Your task to perform on an android device: What time is it in London? Image 0: 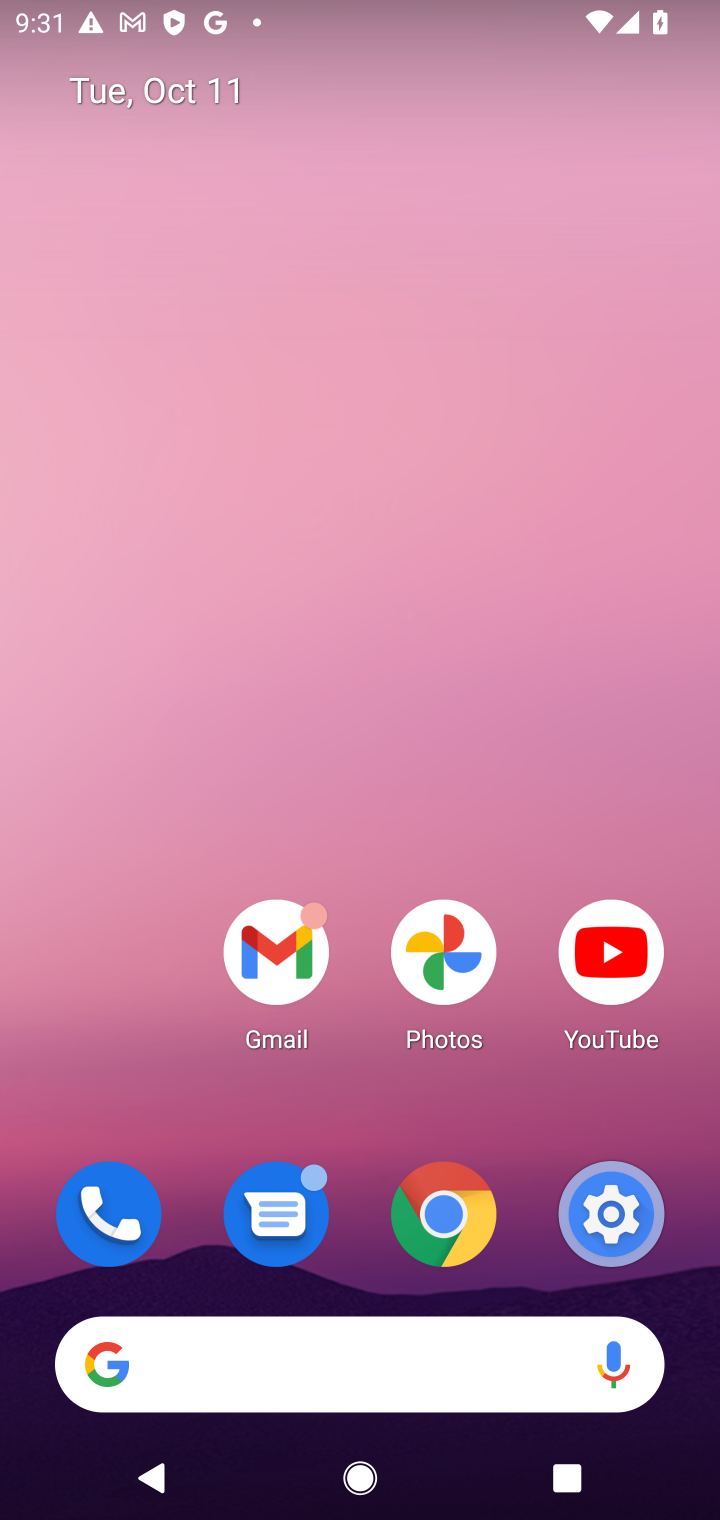
Step 0: drag from (362, 1253) to (347, 226)
Your task to perform on an android device: What time is it in London? Image 1: 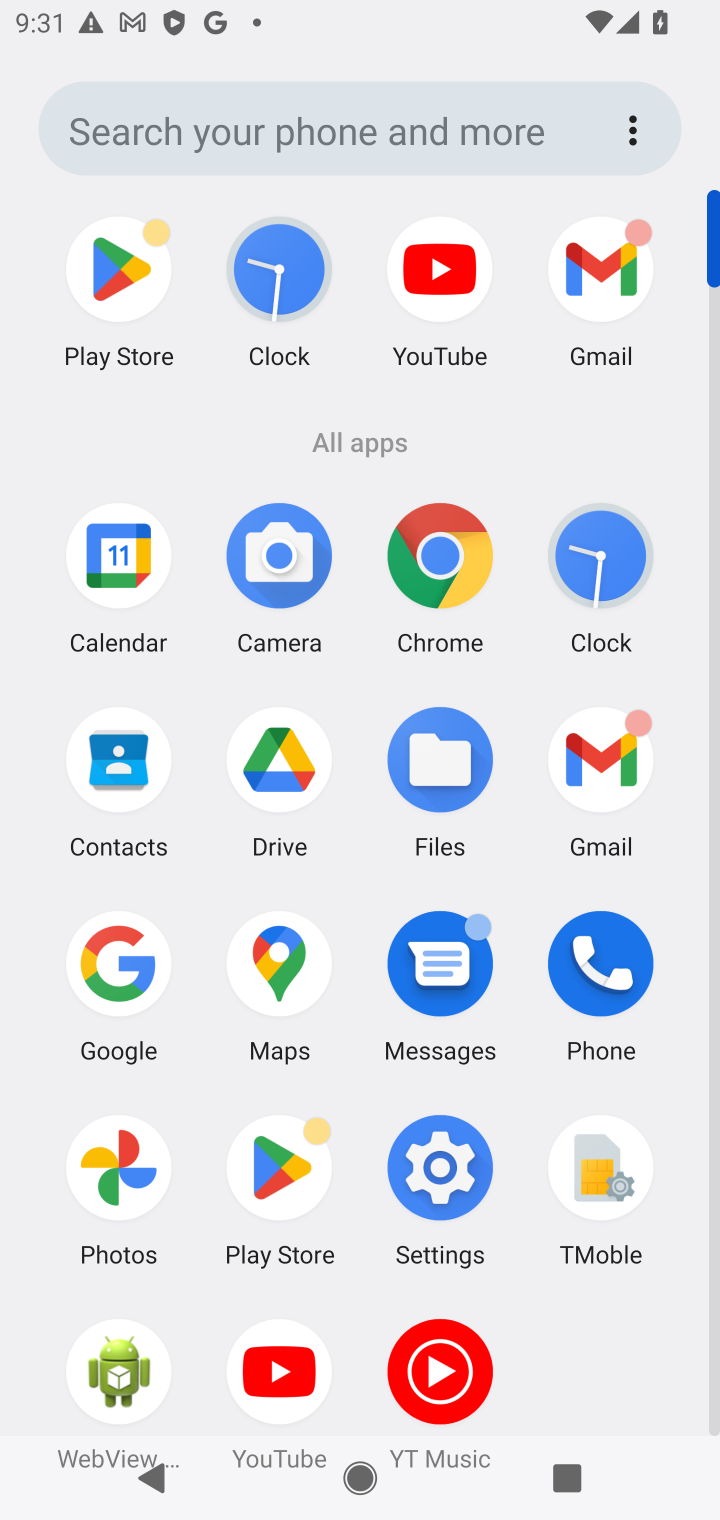
Step 1: click (429, 561)
Your task to perform on an android device: What time is it in London? Image 2: 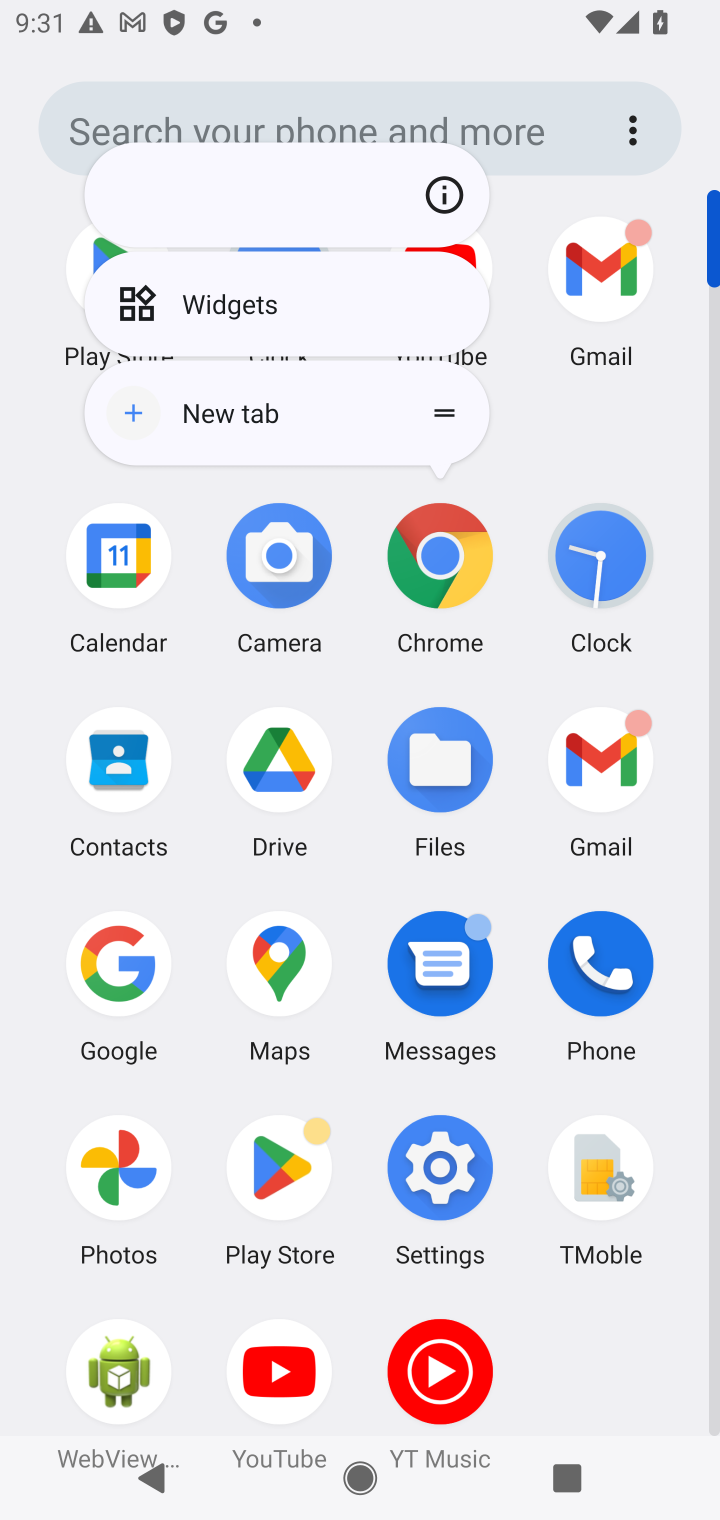
Step 2: click (457, 557)
Your task to perform on an android device: What time is it in London? Image 3: 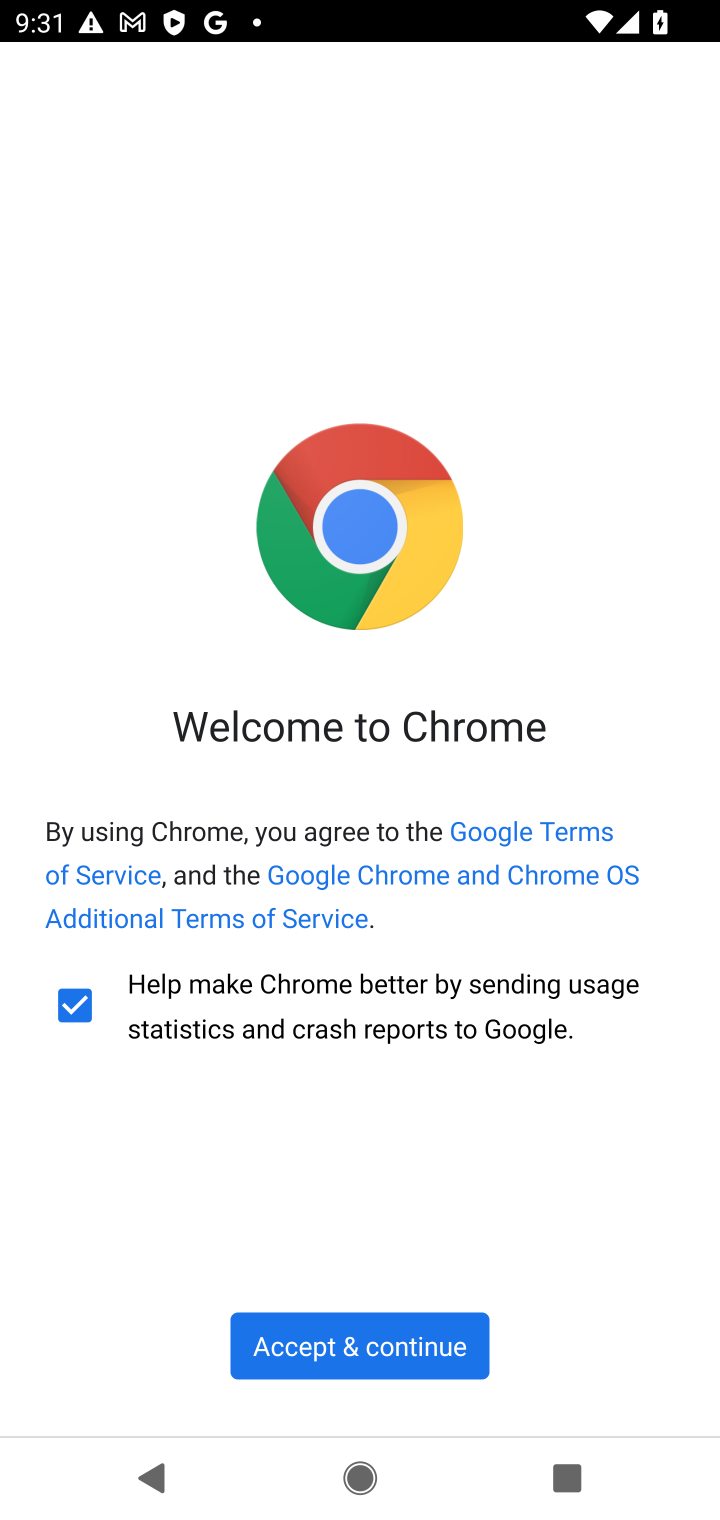
Step 3: click (346, 1346)
Your task to perform on an android device: What time is it in London? Image 4: 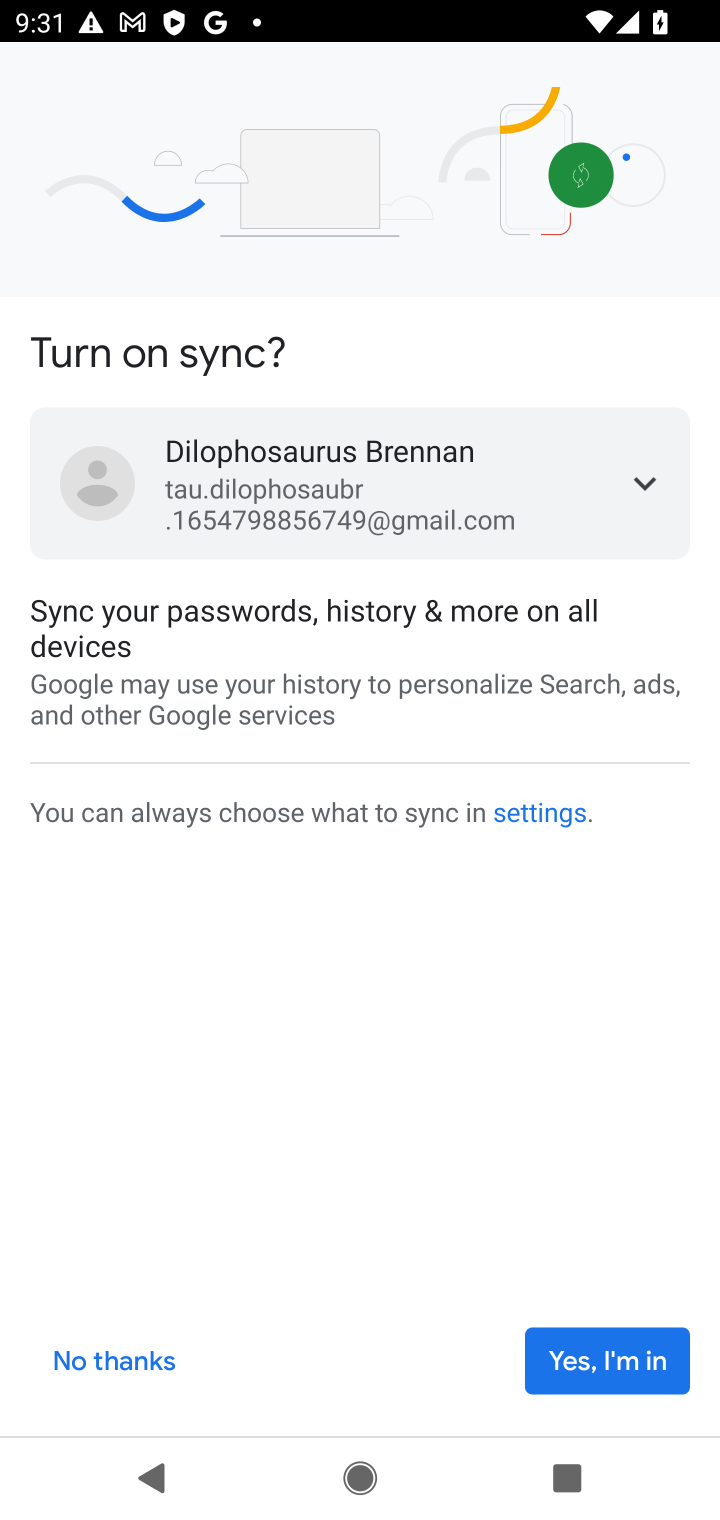
Step 4: click (608, 1379)
Your task to perform on an android device: What time is it in London? Image 5: 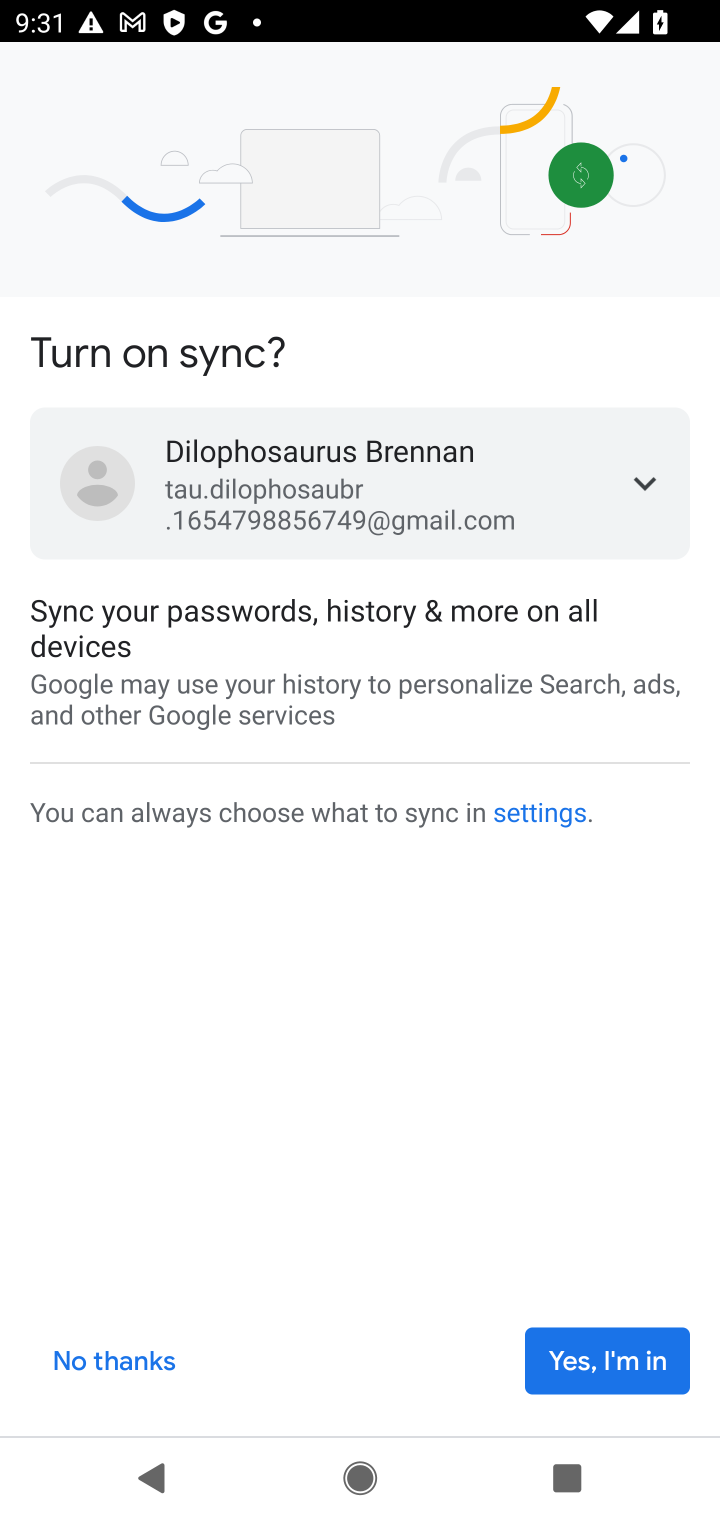
Step 5: click (602, 1357)
Your task to perform on an android device: What time is it in London? Image 6: 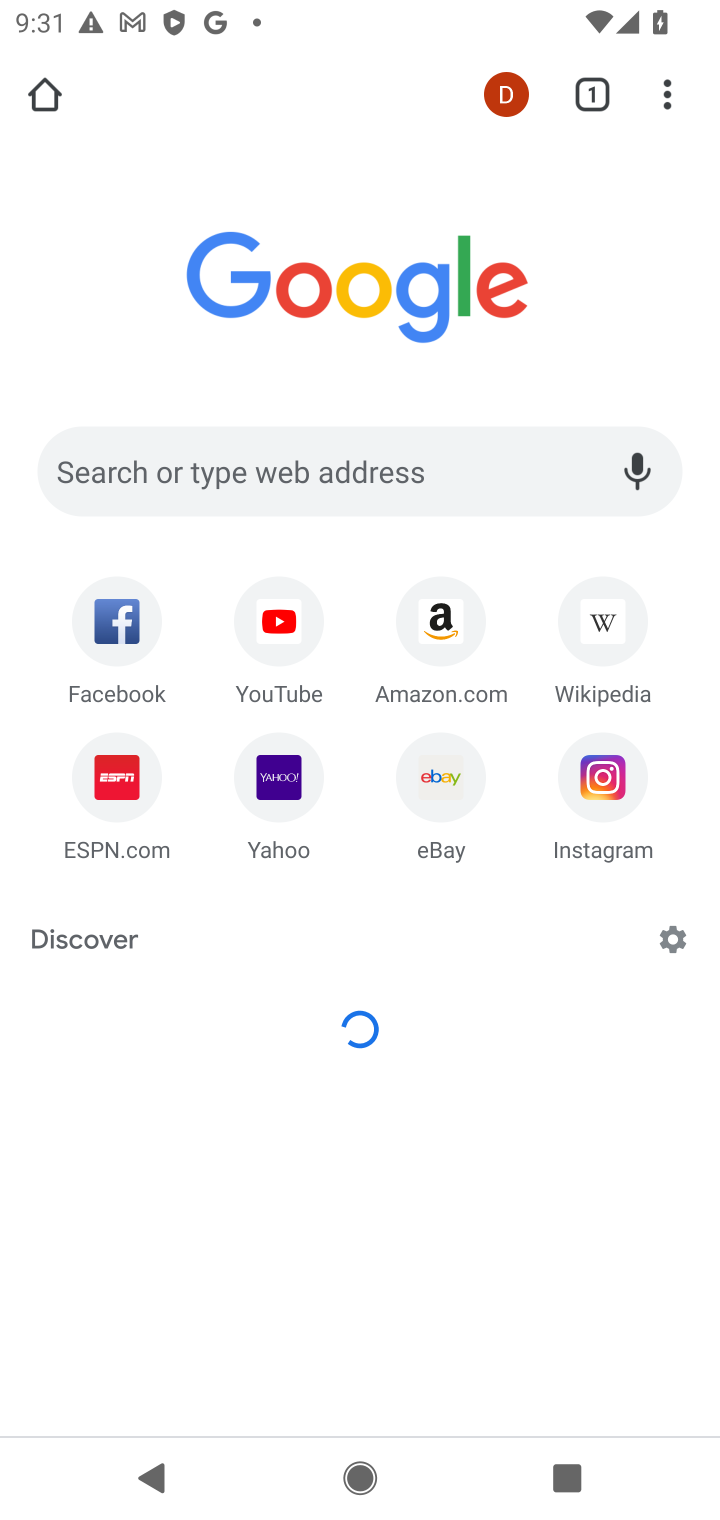
Step 6: click (448, 476)
Your task to perform on an android device: What time is it in London? Image 7: 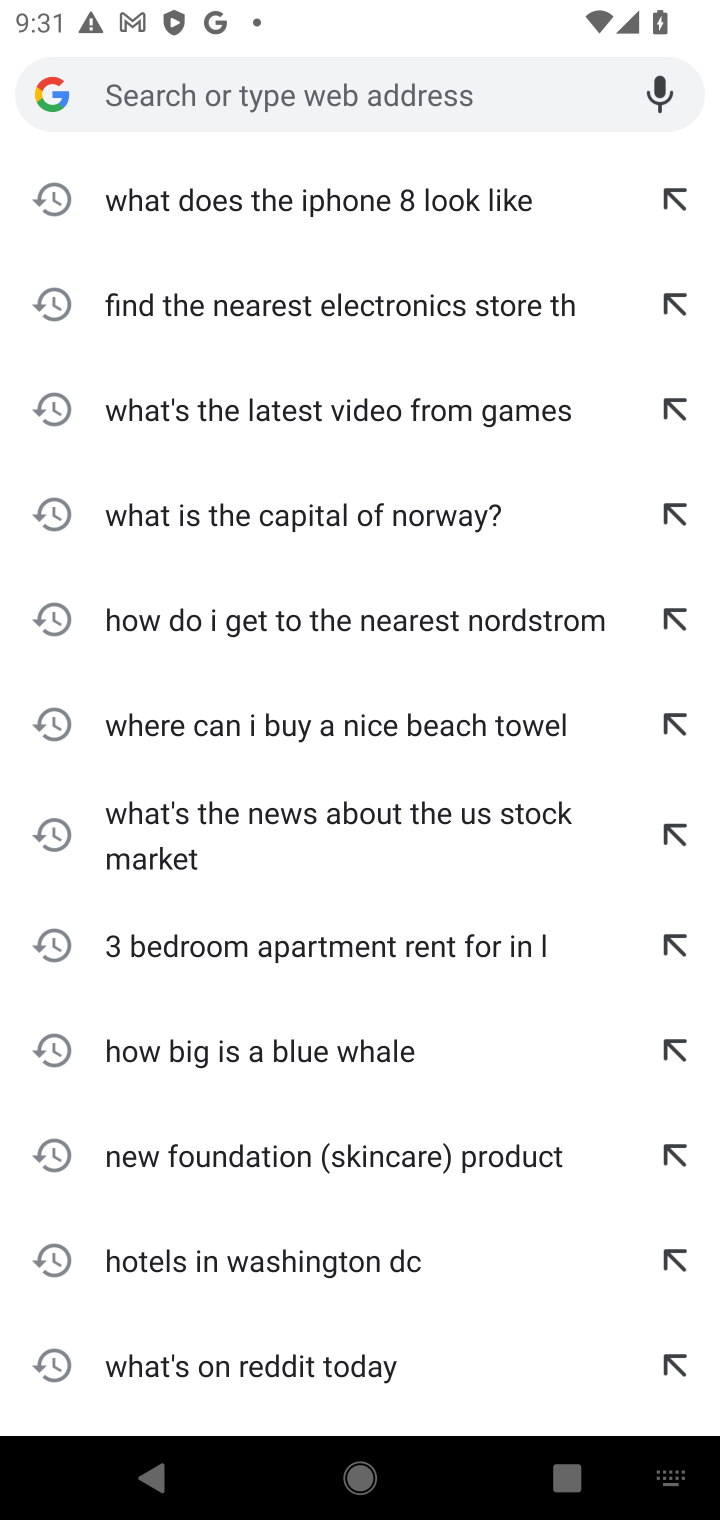
Step 7: type "What time is it in London?"
Your task to perform on an android device: What time is it in London? Image 8: 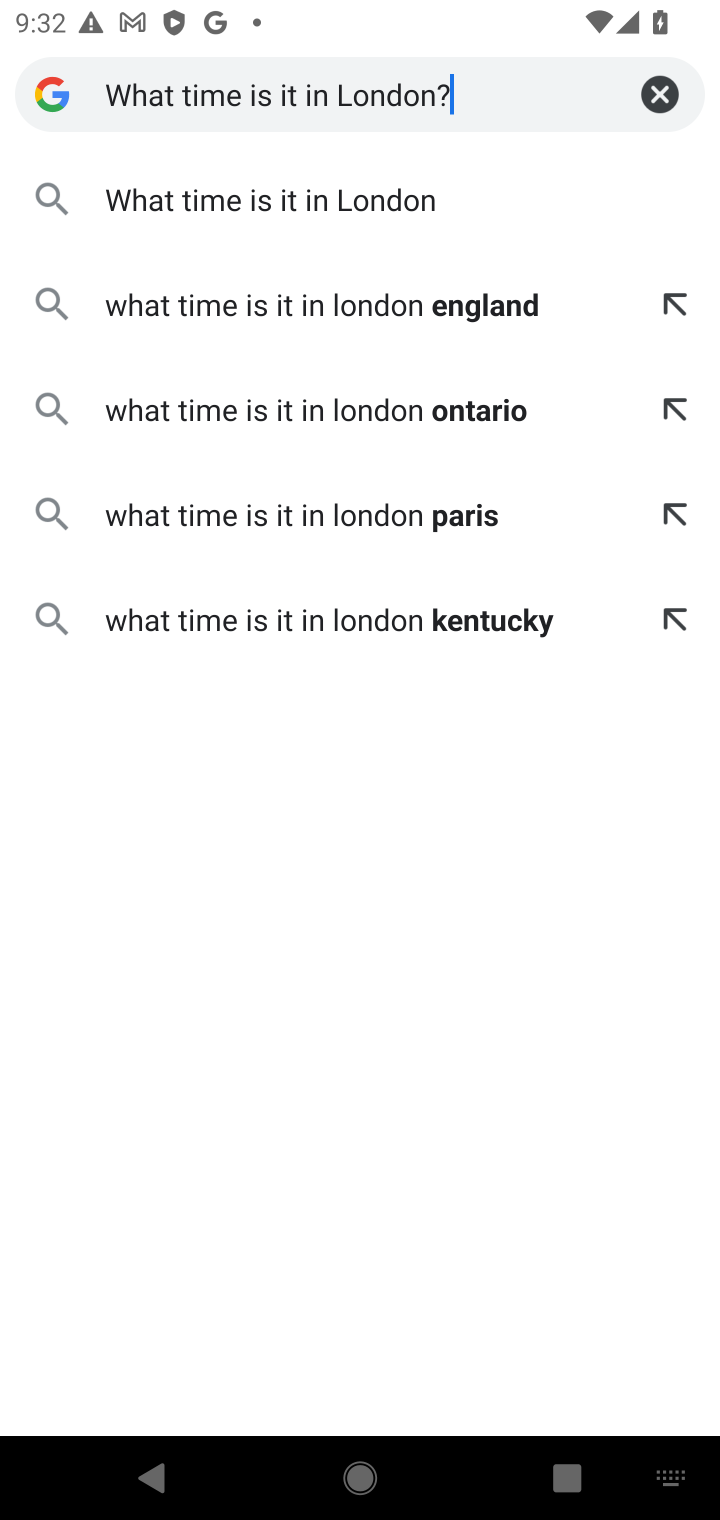
Step 8: press enter
Your task to perform on an android device: What time is it in London? Image 9: 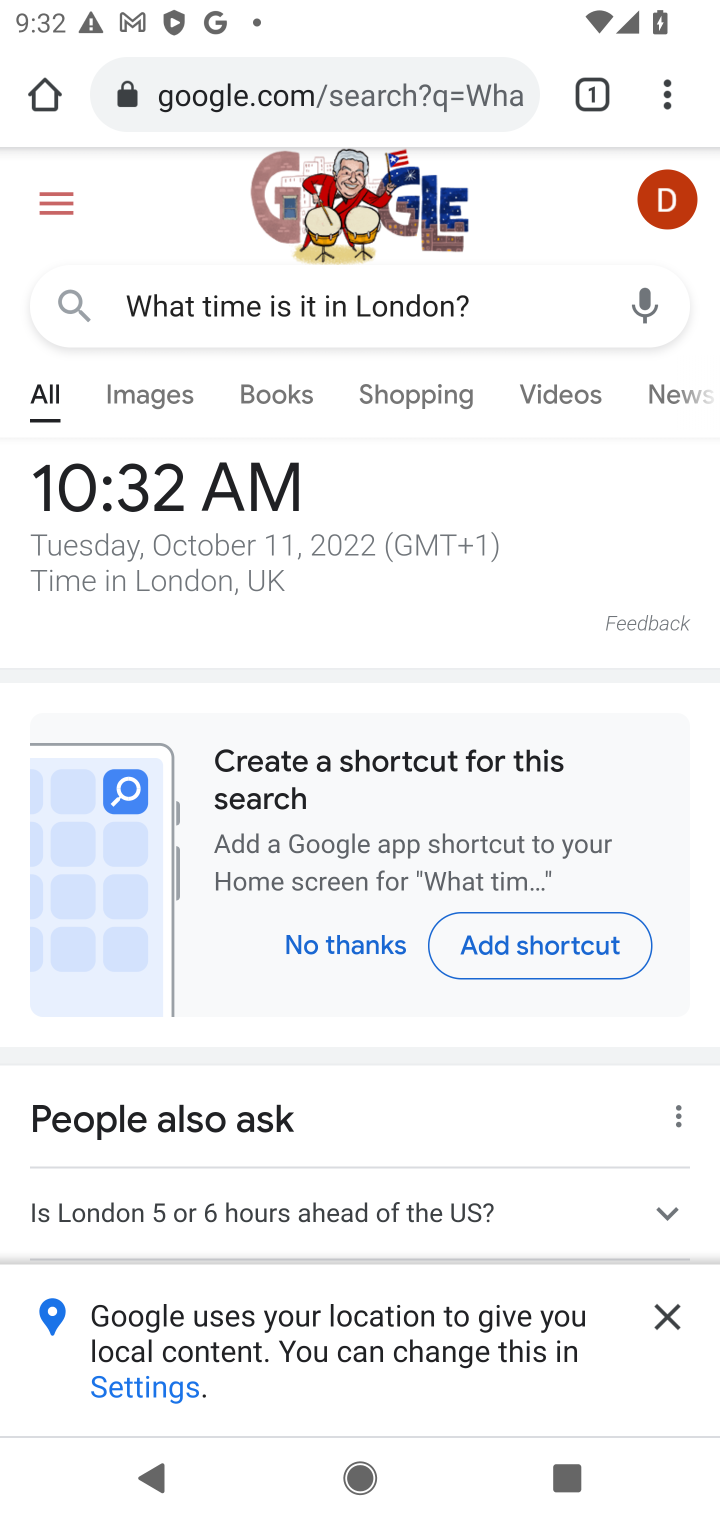
Step 9: task complete